Your task to perform on an android device: Open Amazon Image 0: 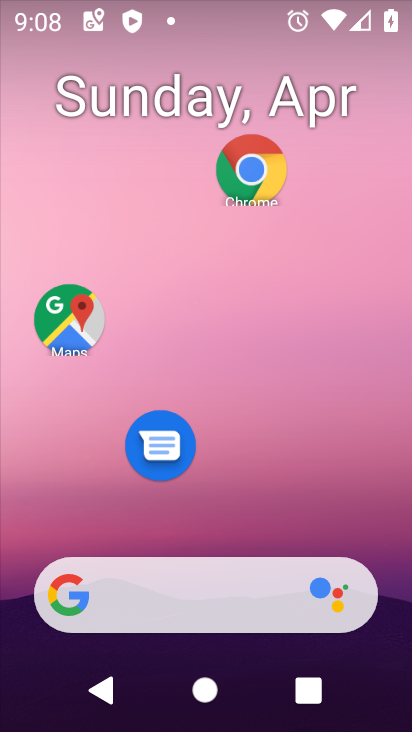
Step 0: click (251, 172)
Your task to perform on an android device: Open Amazon Image 1: 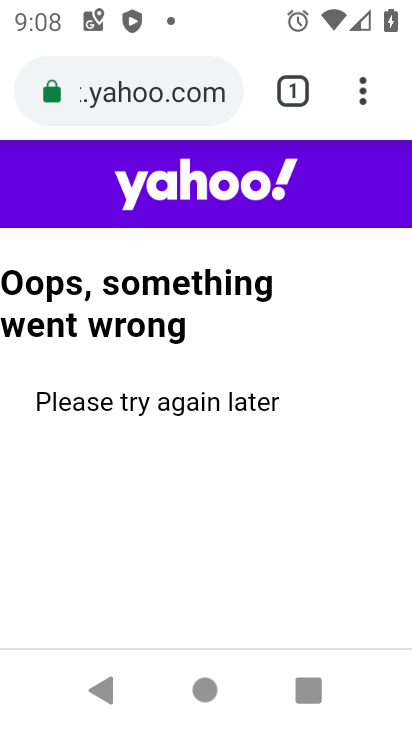
Step 1: click (235, 101)
Your task to perform on an android device: Open Amazon Image 2: 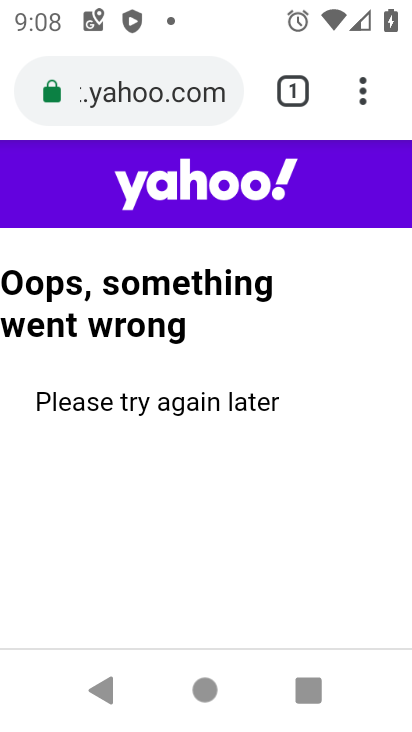
Step 2: click (205, 98)
Your task to perform on an android device: Open Amazon Image 3: 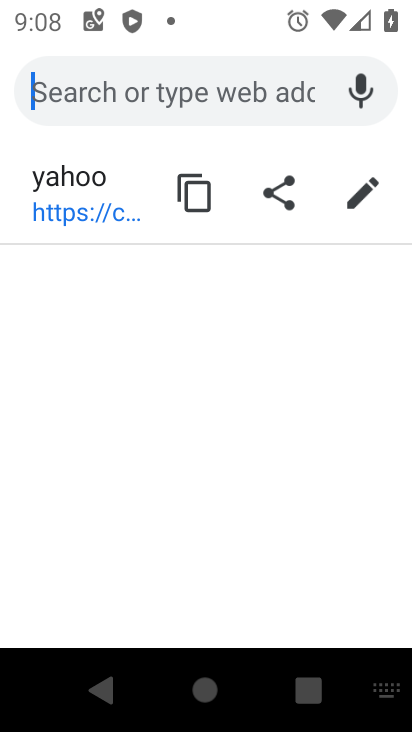
Step 3: type "amazon.com"
Your task to perform on an android device: Open Amazon Image 4: 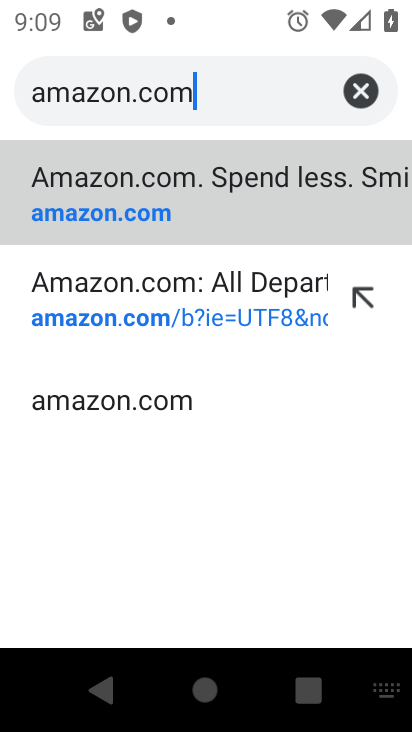
Step 4: click (120, 197)
Your task to perform on an android device: Open Amazon Image 5: 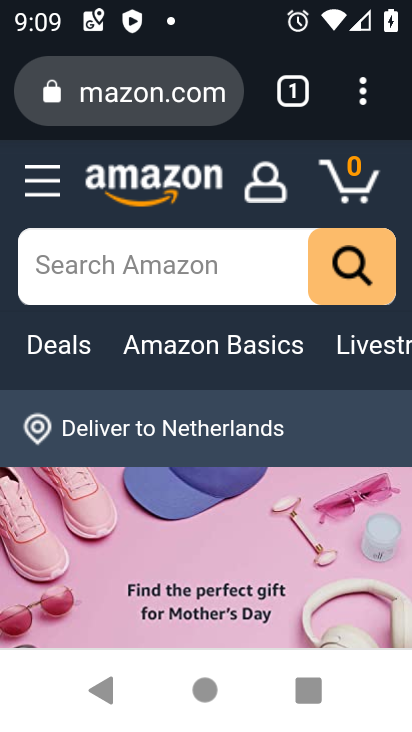
Step 5: task complete